Your task to perform on an android device: Open Wikipedia Image 0: 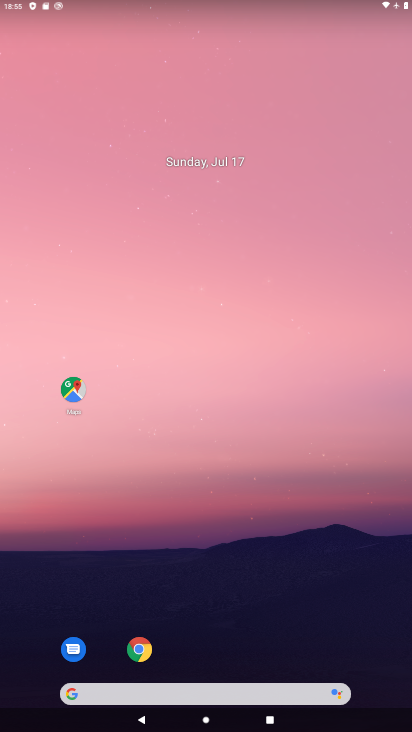
Step 0: click (138, 646)
Your task to perform on an android device: Open Wikipedia Image 1: 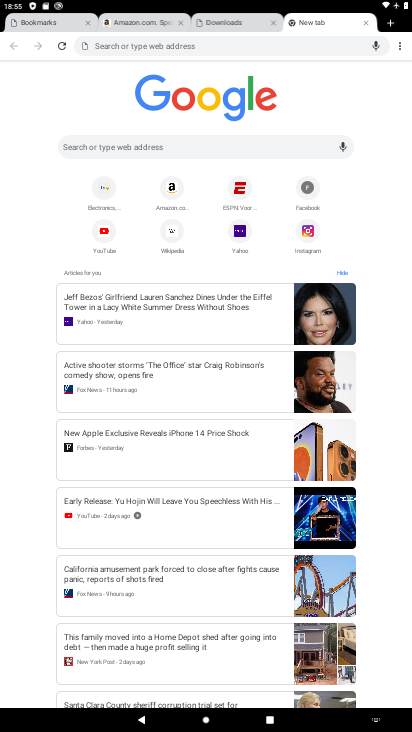
Step 1: click (167, 237)
Your task to perform on an android device: Open Wikipedia Image 2: 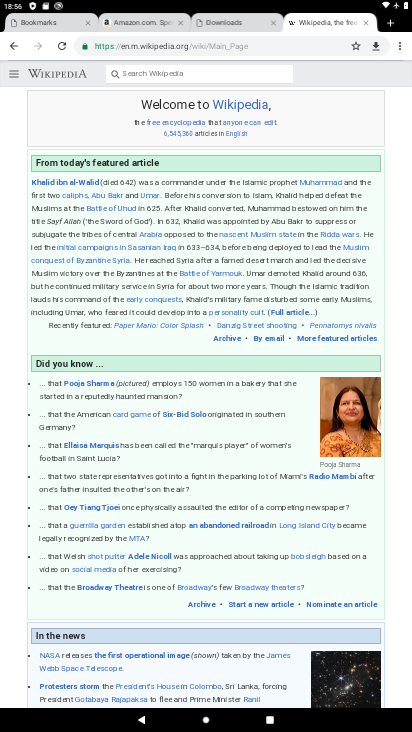
Step 2: task complete